Your task to perform on an android device: turn on priority inbox in the gmail app Image 0: 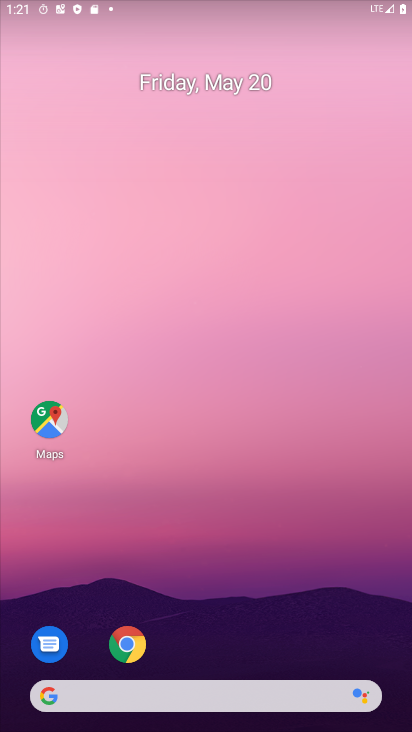
Step 0: drag from (318, 619) to (304, 91)
Your task to perform on an android device: turn on priority inbox in the gmail app Image 1: 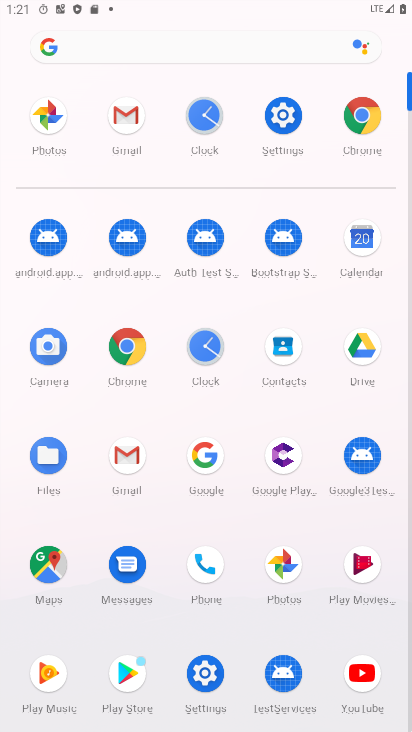
Step 1: click (119, 121)
Your task to perform on an android device: turn on priority inbox in the gmail app Image 2: 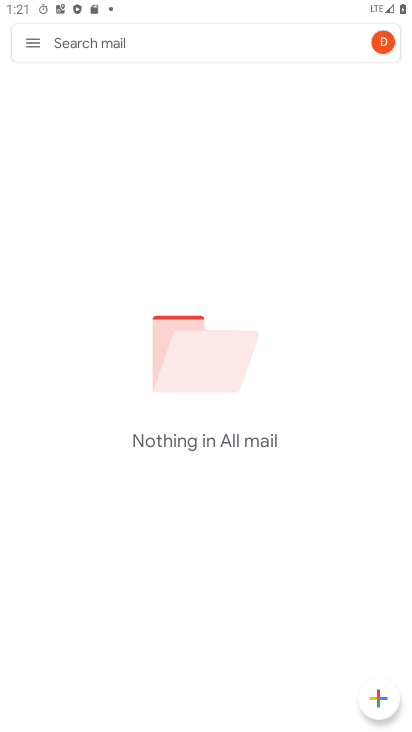
Step 2: click (40, 53)
Your task to perform on an android device: turn on priority inbox in the gmail app Image 3: 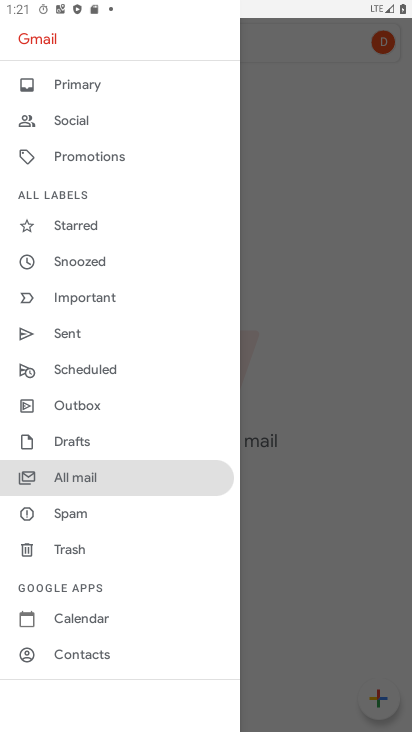
Step 3: drag from (96, 608) to (90, 179)
Your task to perform on an android device: turn on priority inbox in the gmail app Image 4: 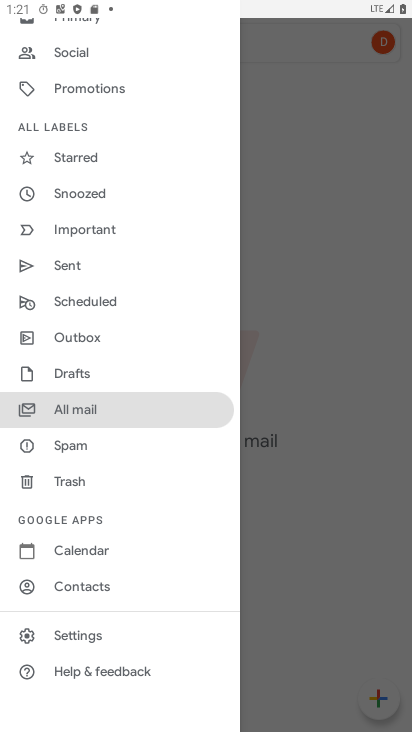
Step 4: click (81, 623)
Your task to perform on an android device: turn on priority inbox in the gmail app Image 5: 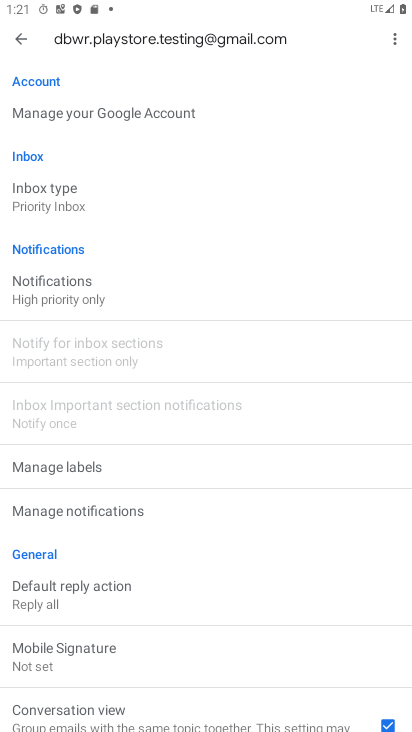
Step 5: task complete